Your task to perform on an android device: Check the news Image 0: 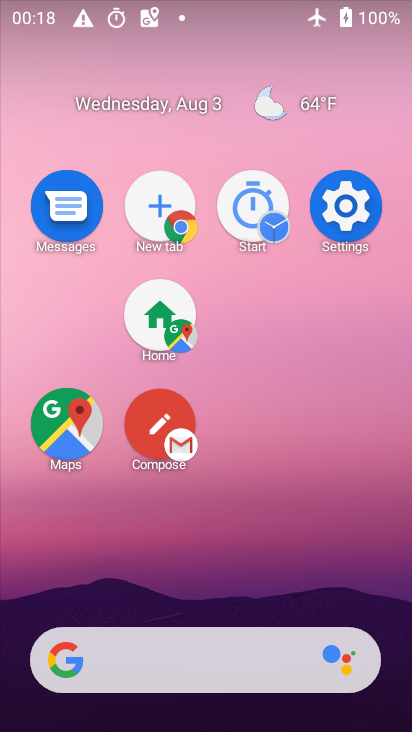
Step 0: drag from (206, 297) to (298, 163)
Your task to perform on an android device: Check the news Image 1: 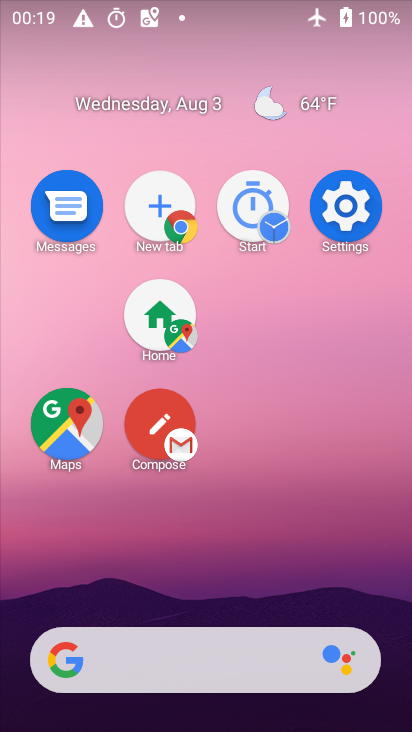
Step 1: click (350, 226)
Your task to perform on an android device: Check the news Image 2: 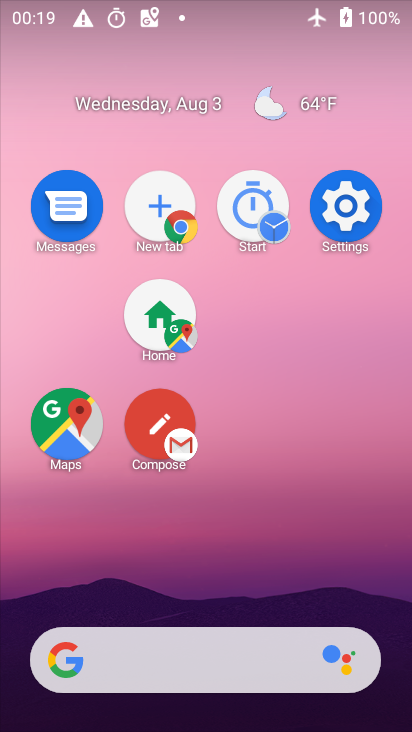
Step 2: click (350, 226)
Your task to perform on an android device: Check the news Image 3: 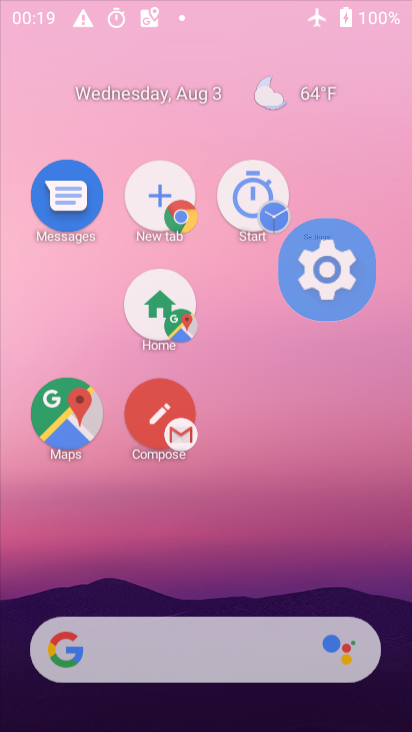
Step 3: click (350, 226)
Your task to perform on an android device: Check the news Image 4: 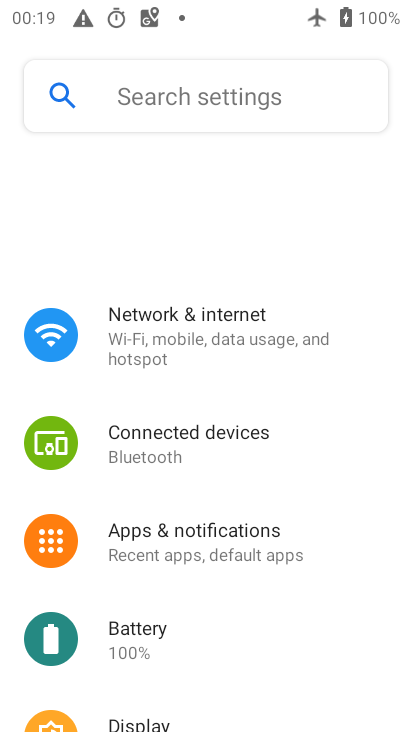
Step 4: click (341, 209)
Your task to perform on an android device: Check the news Image 5: 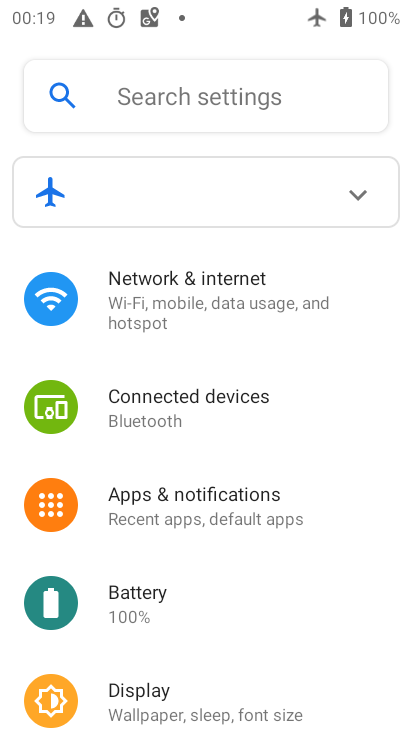
Step 5: press back button
Your task to perform on an android device: Check the news Image 6: 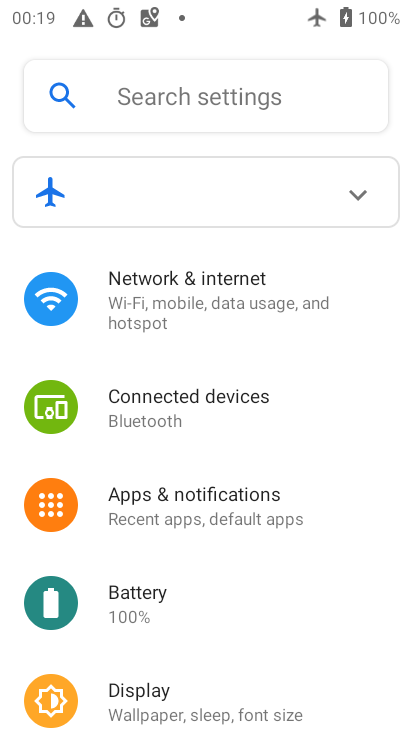
Step 6: press back button
Your task to perform on an android device: Check the news Image 7: 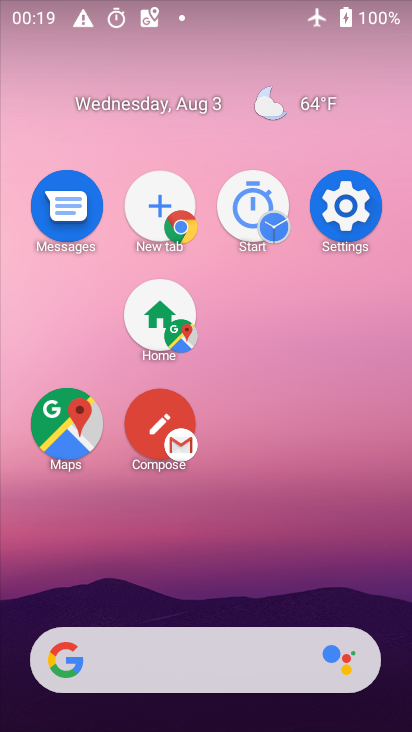
Step 7: drag from (262, 702) to (184, 196)
Your task to perform on an android device: Check the news Image 8: 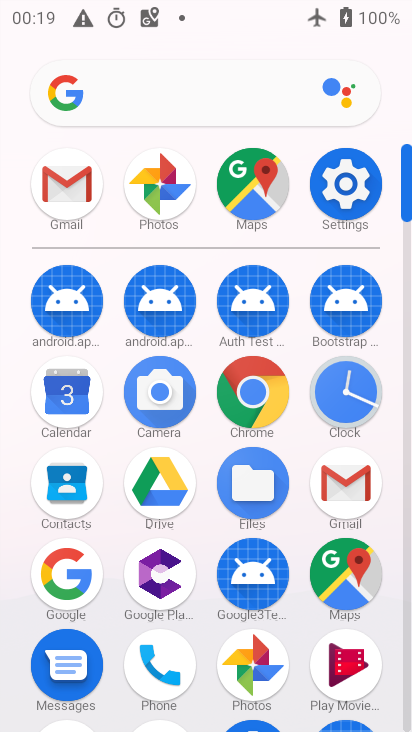
Step 8: click (261, 396)
Your task to perform on an android device: Check the news Image 9: 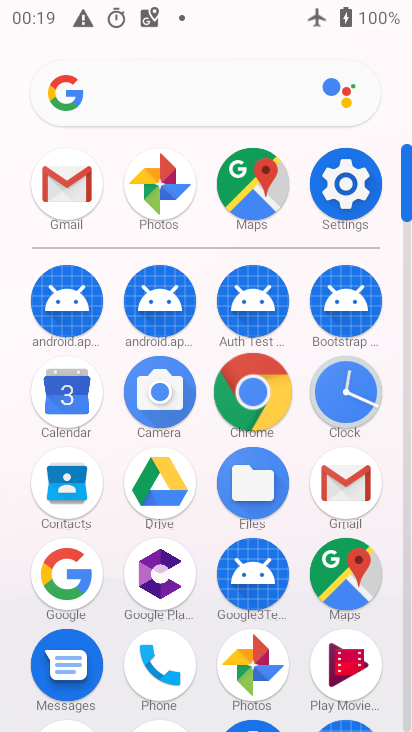
Step 9: click (261, 394)
Your task to perform on an android device: Check the news Image 10: 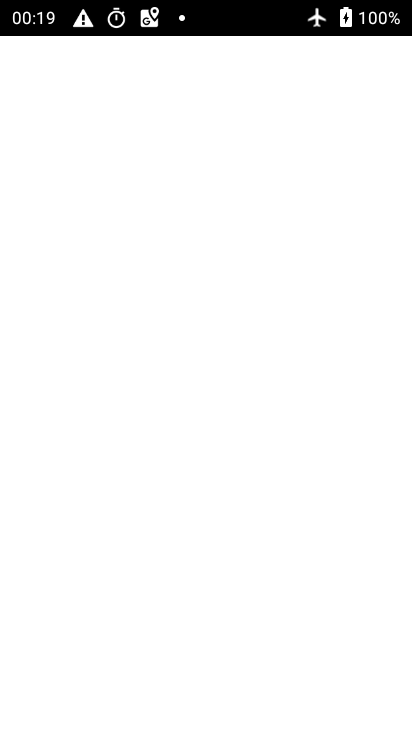
Step 10: click (261, 393)
Your task to perform on an android device: Check the news Image 11: 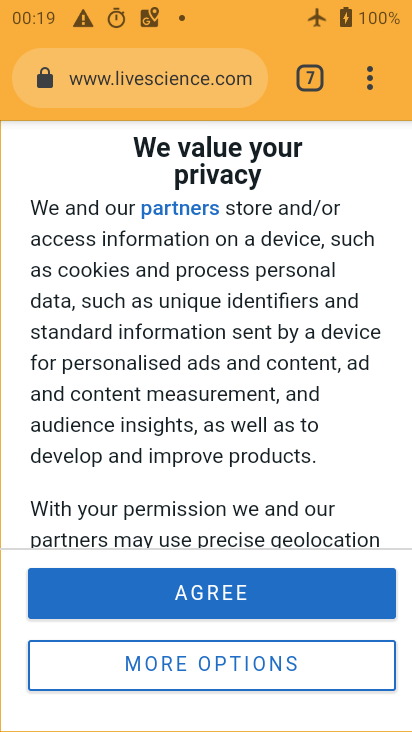
Step 11: task complete